Your task to perform on an android device: toggle show notifications on the lock screen Image 0: 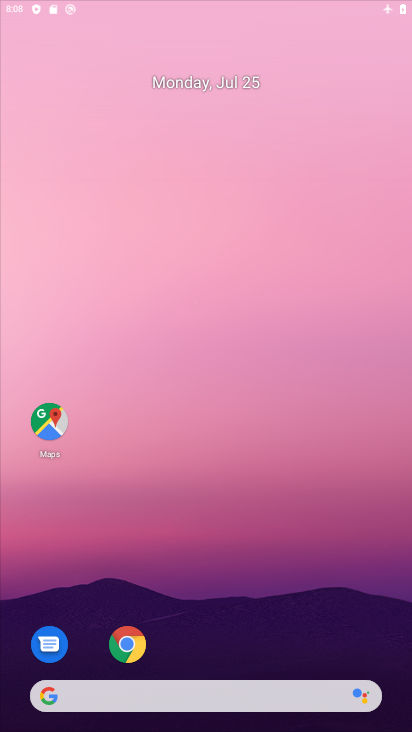
Step 0: click (258, 207)
Your task to perform on an android device: toggle show notifications on the lock screen Image 1: 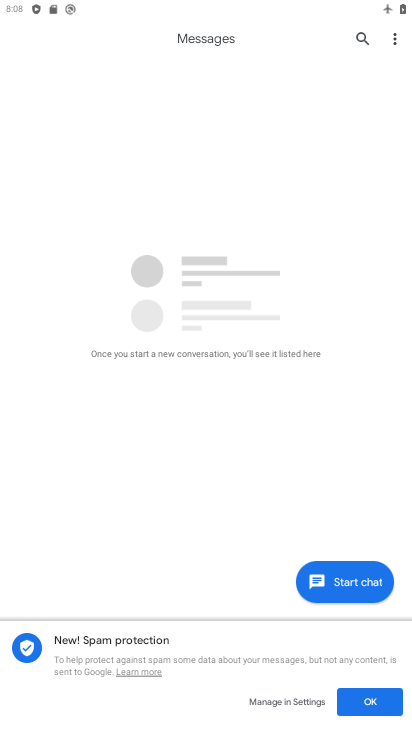
Step 1: press home button
Your task to perform on an android device: toggle show notifications on the lock screen Image 2: 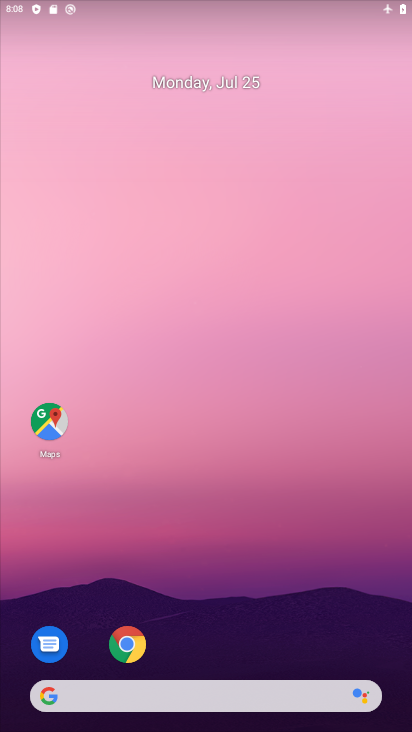
Step 2: drag from (225, 651) to (206, 202)
Your task to perform on an android device: toggle show notifications on the lock screen Image 3: 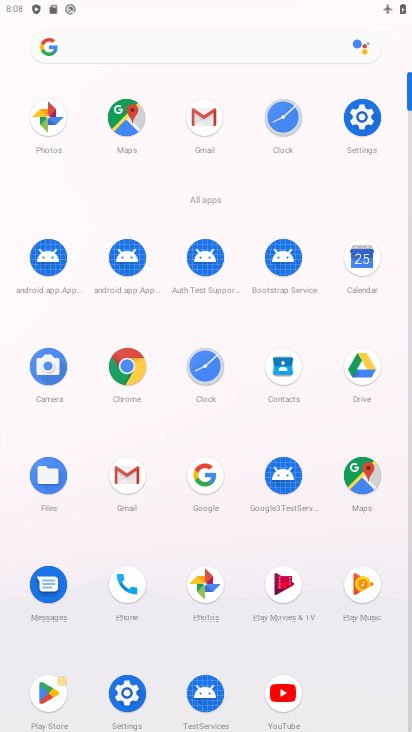
Step 3: click (361, 116)
Your task to perform on an android device: toggle show notifications on the lock screen Image 4: 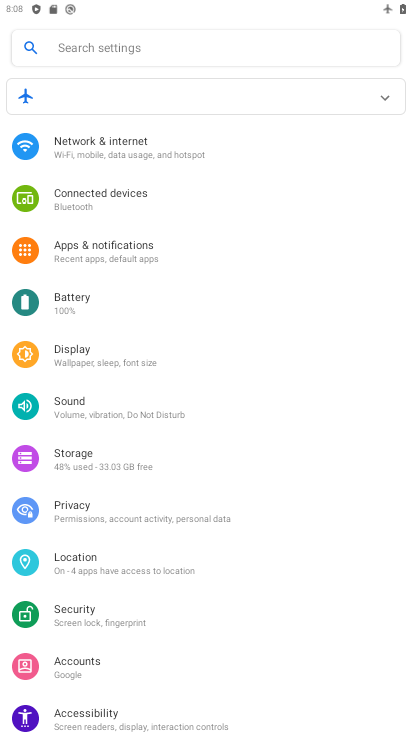
Step 4: click (131, 238)
Your task to perform on an android device: toggle show notifications on the lock screen Image 5: 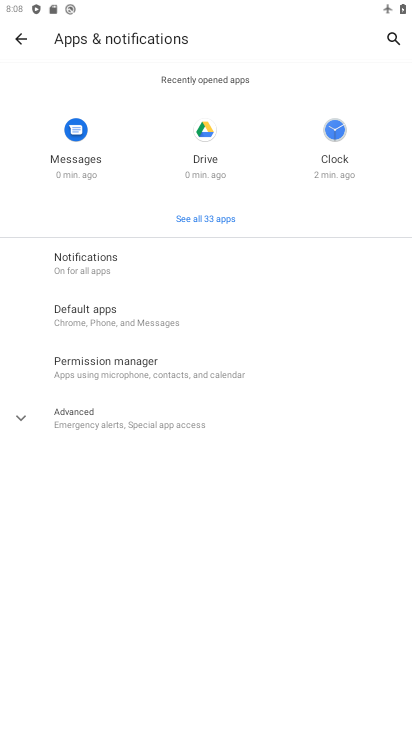
Step 5: click (14, 40)
Your task to perform on an android device: toggle show notifications on the lock screen Image 6: 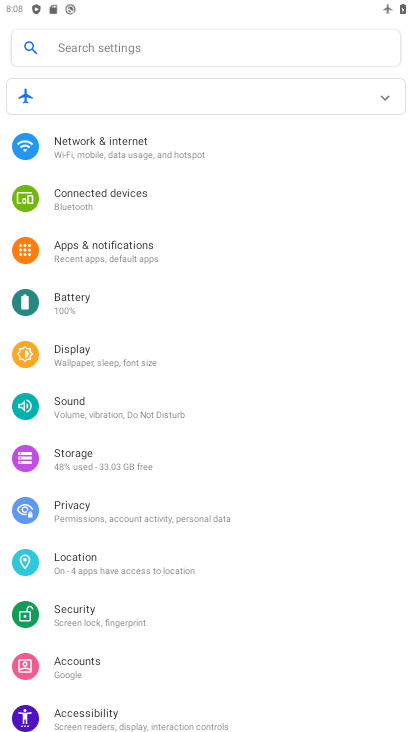
Step 6: click (130, 252)
Your task to perform on an android device: toggle show notifications on the lock screen Image 7: 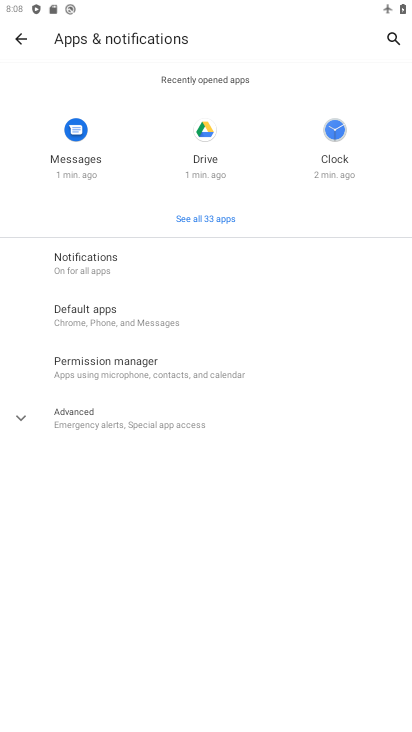
Step 7: click (127, 257)
Your task to perform on an android device: toggle show notifications on the lock screen Image 8: 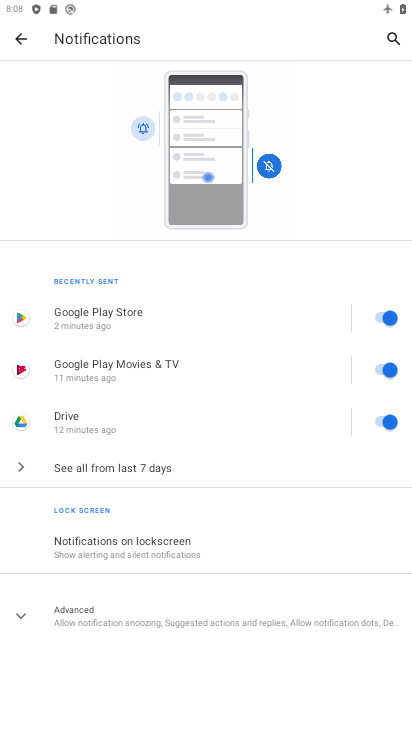
Step 8: click (215, 540)
Your task to perform on an android device: toggle show notifications on the lock screen Image 9: 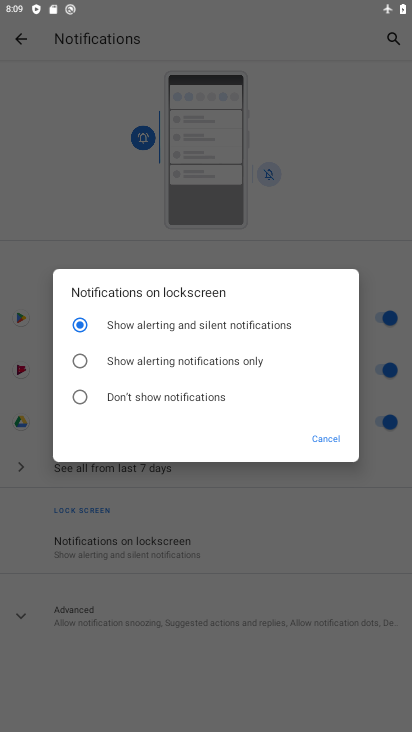
Step 9: click (126, 403)
Your task to perform on an android device: toggle show notifications on the lock screen Image 10: 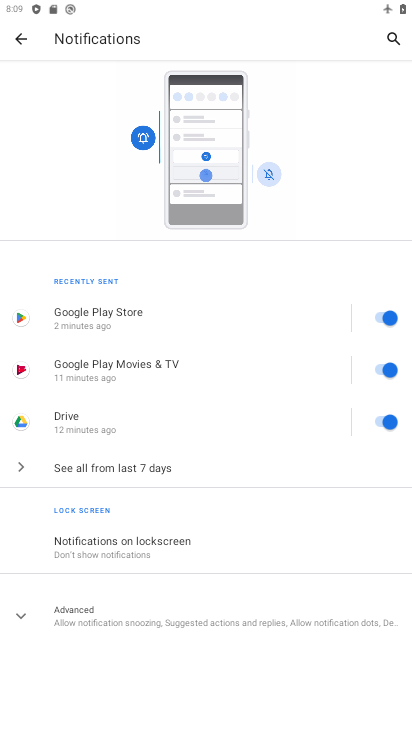
Step 10: task complete